Your task to perform on an android device: set the timer Image 0: 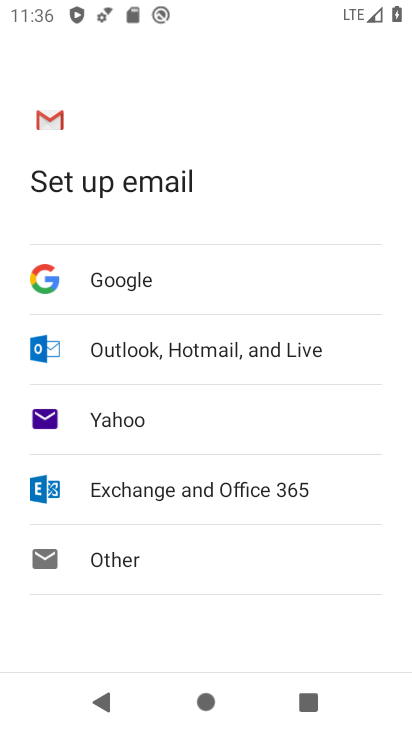
Step 0: press home button
Your task to perform on an android device: set the timer Image 1: 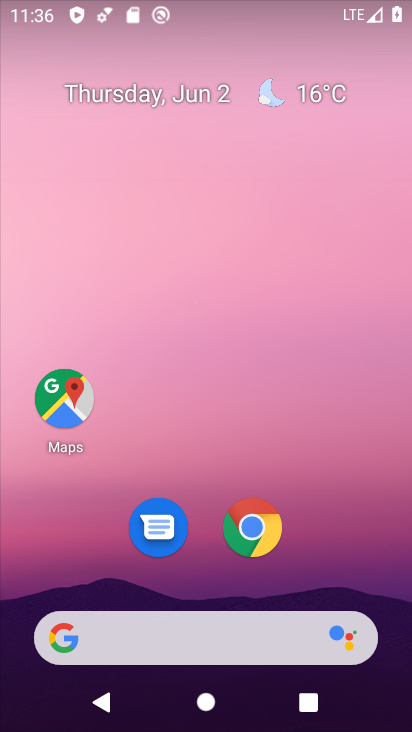
Step 1: drag from (169, 622) to (177, 12)
Your task to perform on an android device: set the timer Image 2: 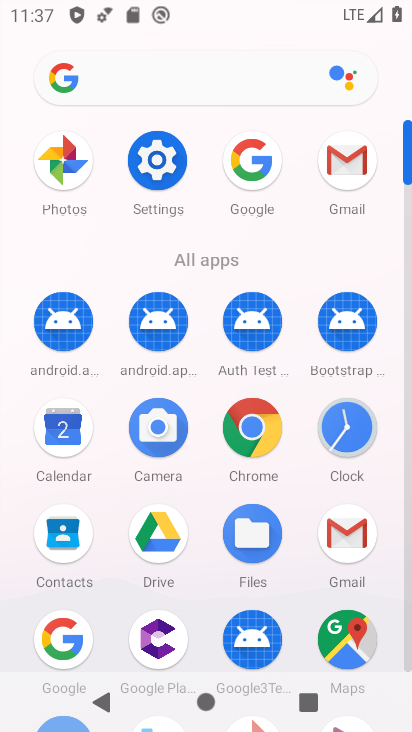
Step 2: click (322, 425)
Your task to perform on an android device: set the timer Image 3: 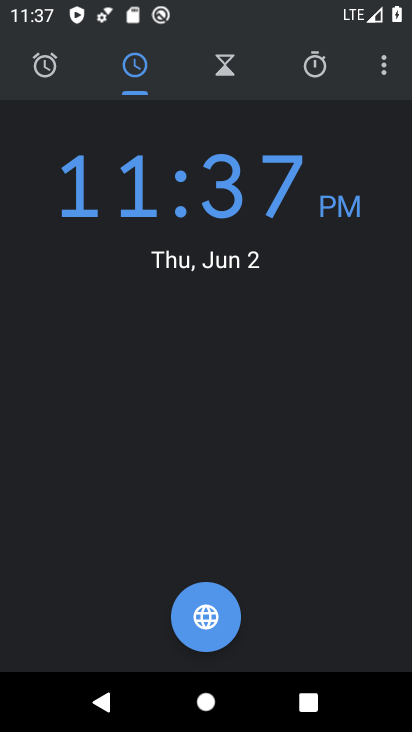
Step 3: click (249, 74)
Your task to perform on an android device: set the timer Image 4: 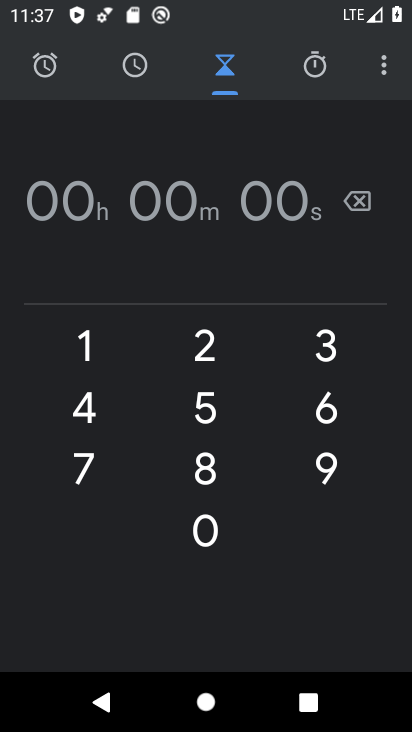
Step 4: click (204, 390)
Your task to perform on an android device: set the timer Image 5: 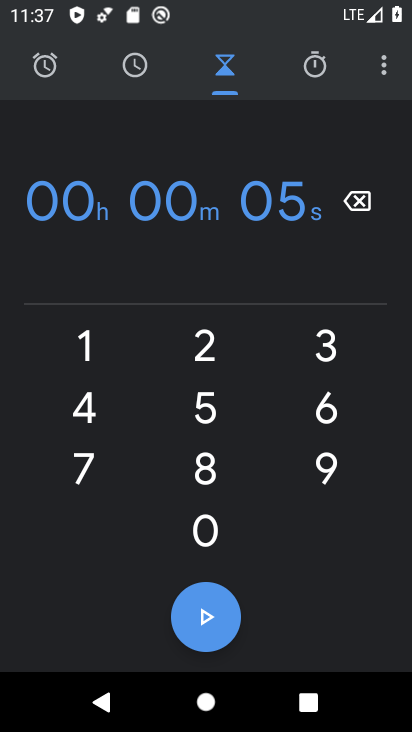
Step 5: click (337, 401)
Your task to perform on an android device: set the timer Image 6: 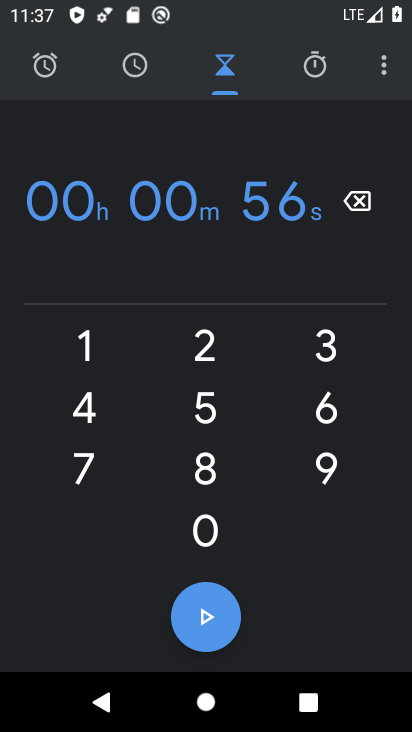
Step 6: click (326, 371)
Your task to perform on an android device: set the timer Image 7: 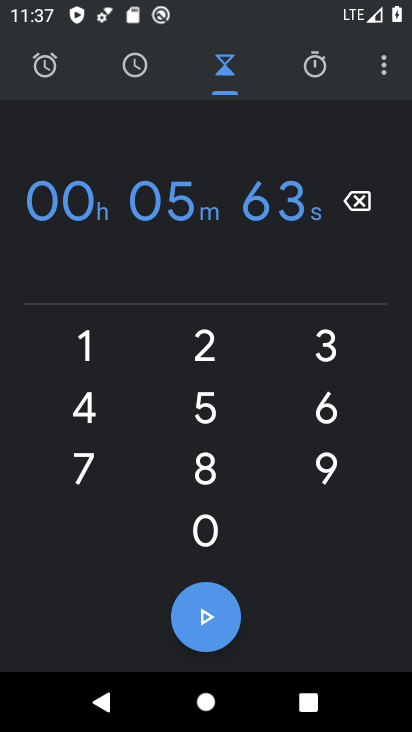
Step 7: click (230, 368)
Your task to perform on an android device: set the timer Image 8: 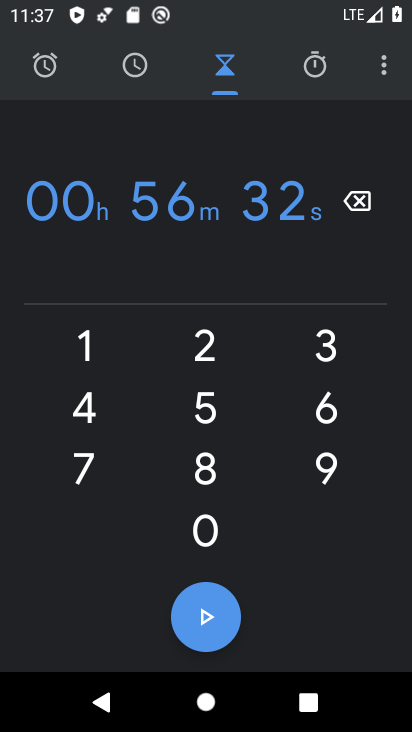
Step 8: click (217, 613)
Your task to perform on an android device: set the timer Image 9: 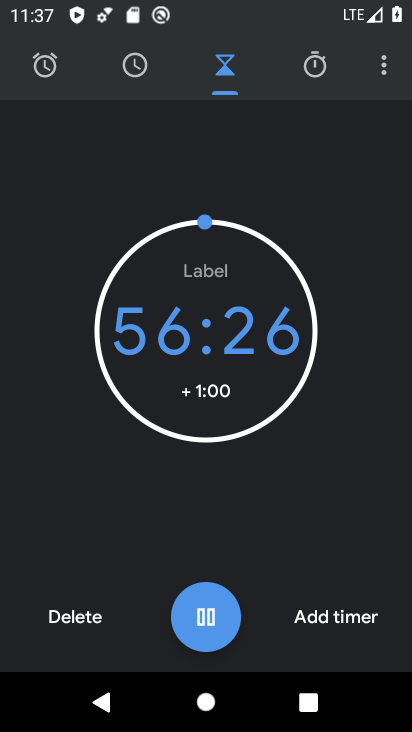
Step 9: task complete